Your task to perform on an android device: Search for the best selling book on Amazon. Image 0: 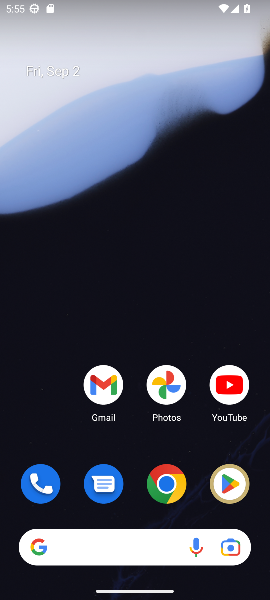
Step 0: click (170, 483)
Your task to perform on an android device: Search for the best selling book on Amazon. Image 1: 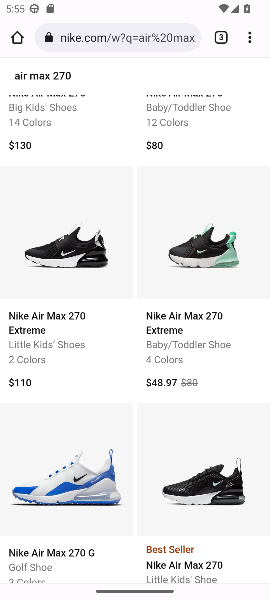
Step 1: click (132, 37)
Your task to perform on an android device: Search for the best selling book on Amazon. Image 2: 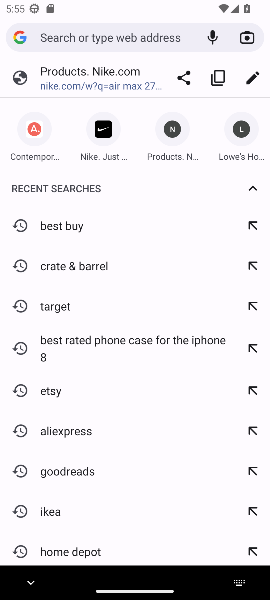
Step 2: press enter
Your task to perform on an android device: Search for the best selling book on Amazon. Image 3: 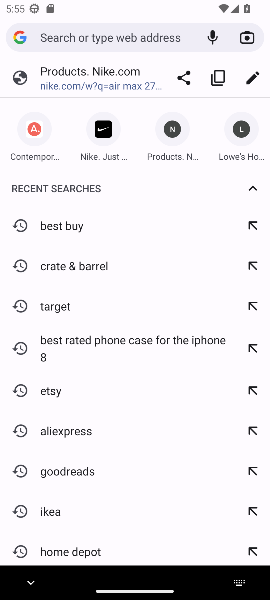
Step 3: type "Amazon"
Your task to perform on an android device: Search for the best selling book on Amazon. Image 4: 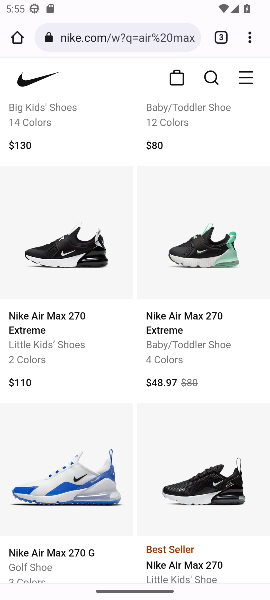
Step 4: click (122, 36)
Your task to perform on an android device: Search for the best selling book on Amazon. Image 5: 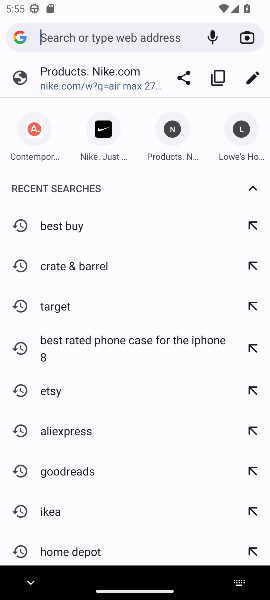
Step 5: type "Amazon"
Your task to perform on an android device: Search for the best selling book on Amazon. Image 6: 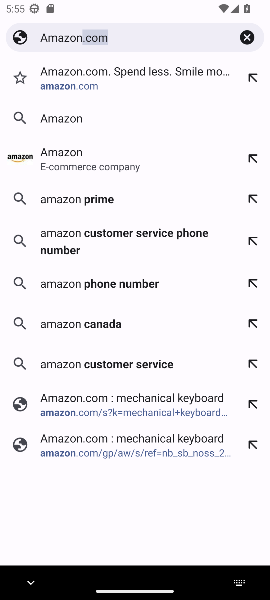
Step 6: press enter
Your task to perform on an android device: Search for the best selling book on Amazon. Image 7: 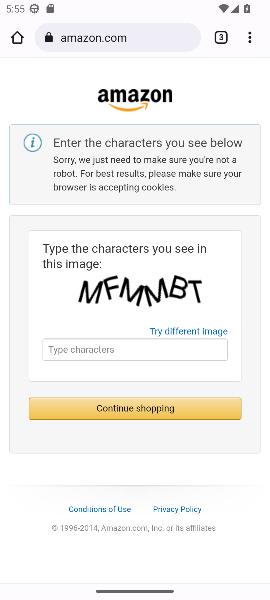
Step 7: drag from (141, 147) to (172, 450)
Your task to perform on an android device: Search for the best selling book on Amazon. Image 8: 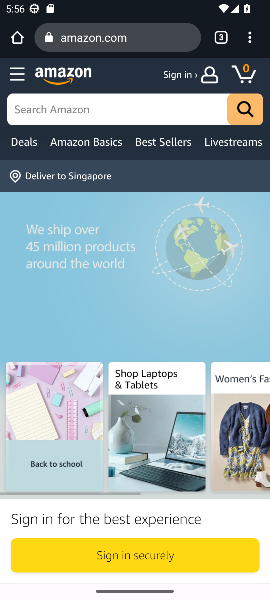
Step 8: click (118, 106)
Your task to perform on an android device: Search for the best selling book on Amazon. Image 9: 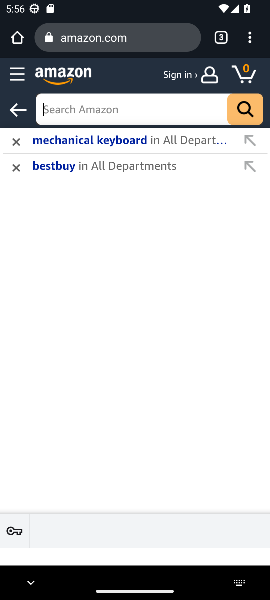
Step 9: type "best selling book"
Your task to perform on an android device: Search for the best selling book on Amazon. Image 10: 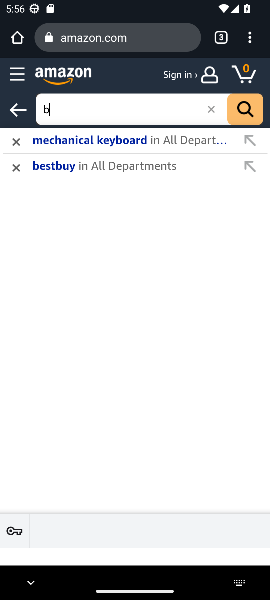
Step 10: press enter
Your task to perform on an android device: Search for the best selling book on Amazon. Image 11: 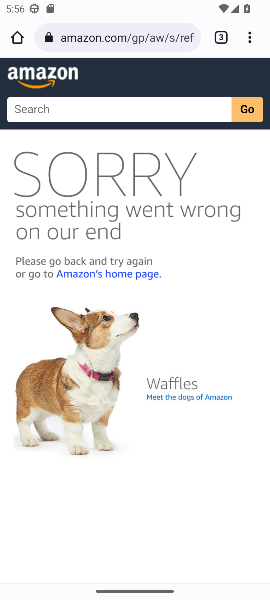
Step 11: press back button
Your task to perform on an android device: Search for the best selling book on Amazon. Image 12: 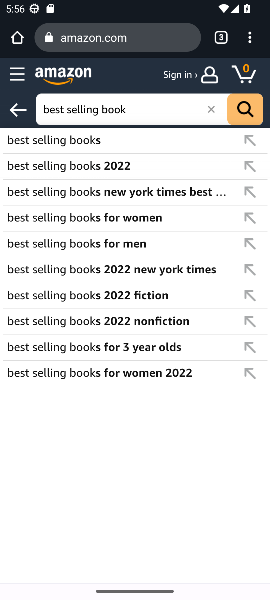
Step 12: click (102, 142)
Your task to perform on an android device: Search for the best selling book on Amazon. Image 13: 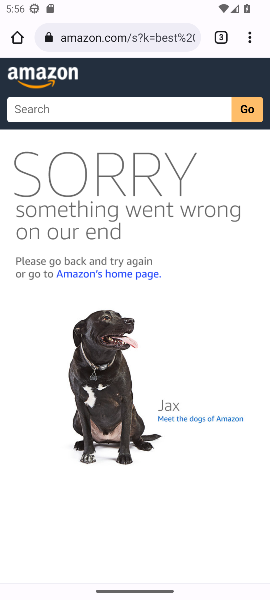
Step 13: task complete